Your task to perform on an android device: Do I have any events today? Image 0: 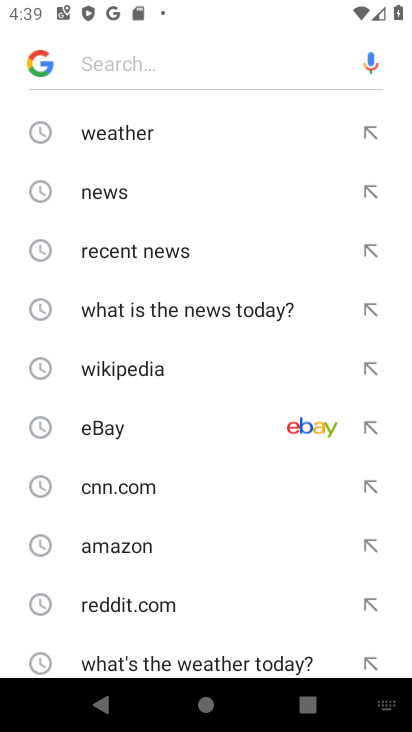
Step 0: press back button
Your task to perform on an android device: Do I have any events today? Image 1: 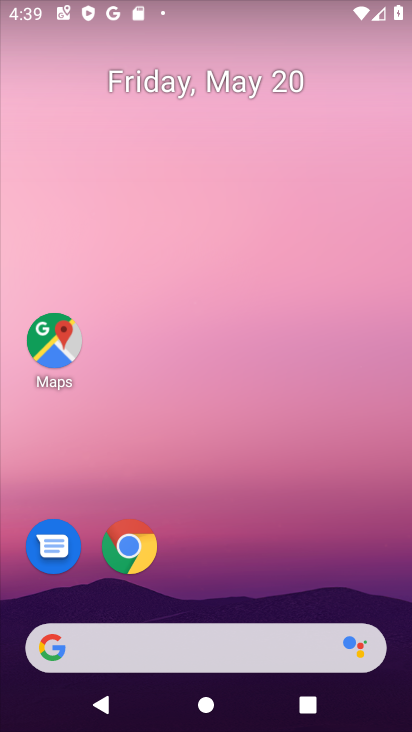
Step 1: drag from (274, 567) to (282, 86)
Your task to perform on an android device: Do I have any events today? Image 2: 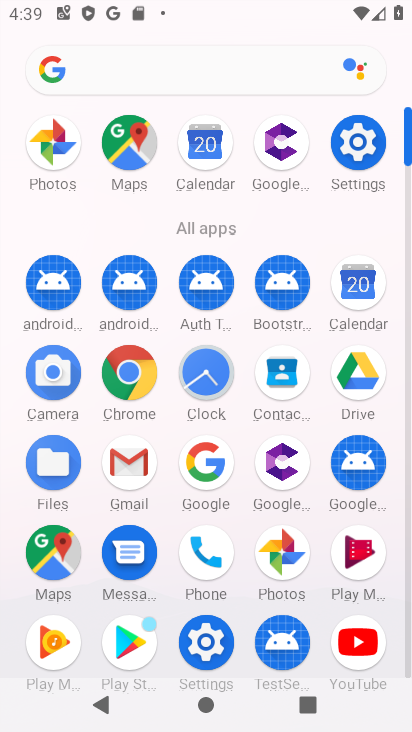
Step 2: click (209, 147)
Your task to perform on an android device: Do I have any events today? Image 3: 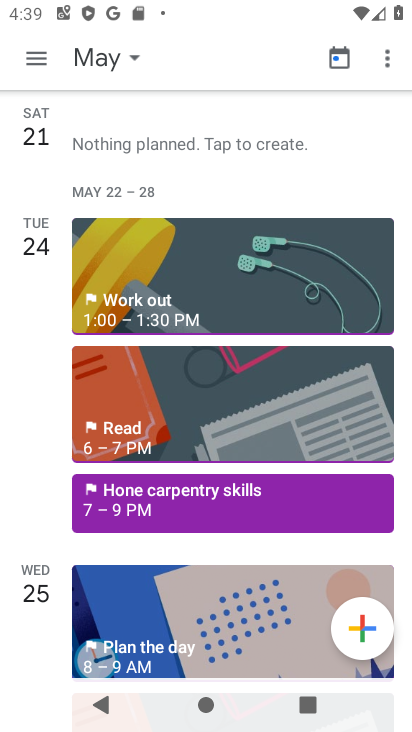
Step 3: click (342, 61)
Your task to perform on an android device: Do I have any events today? Image 4: 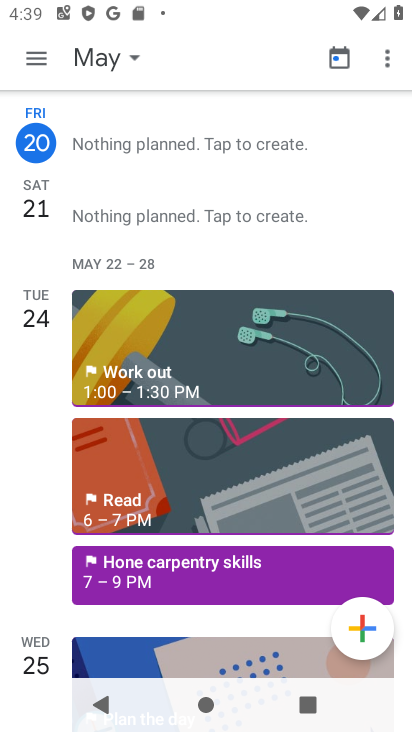
Step 4: task complete